Your task to perform on an android device: turn on sleep mode Image 0: 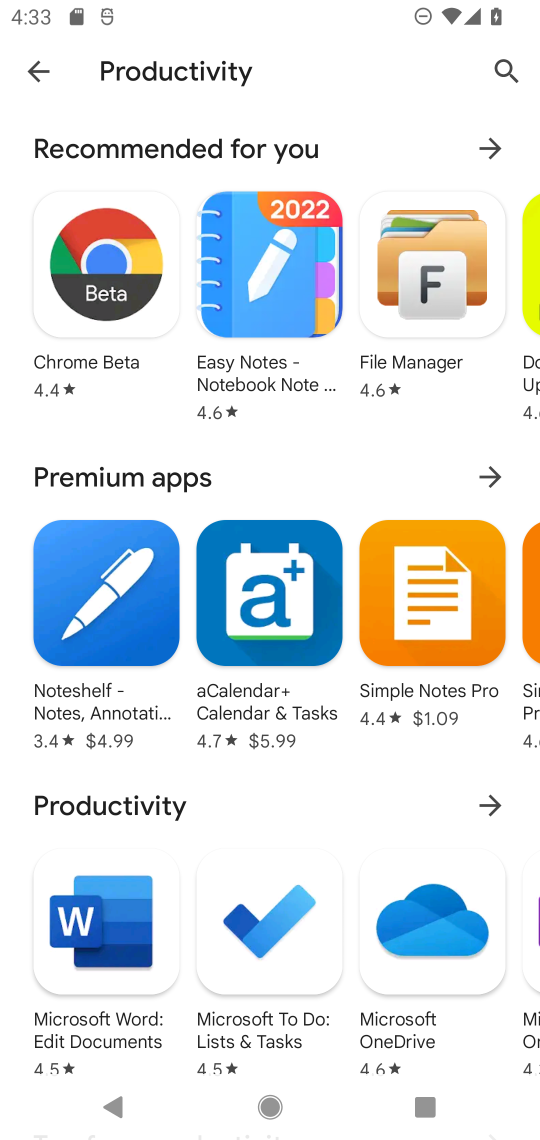
Step 0: press home button
Your task to perform on an android device: turn on sleep mode Image 1: 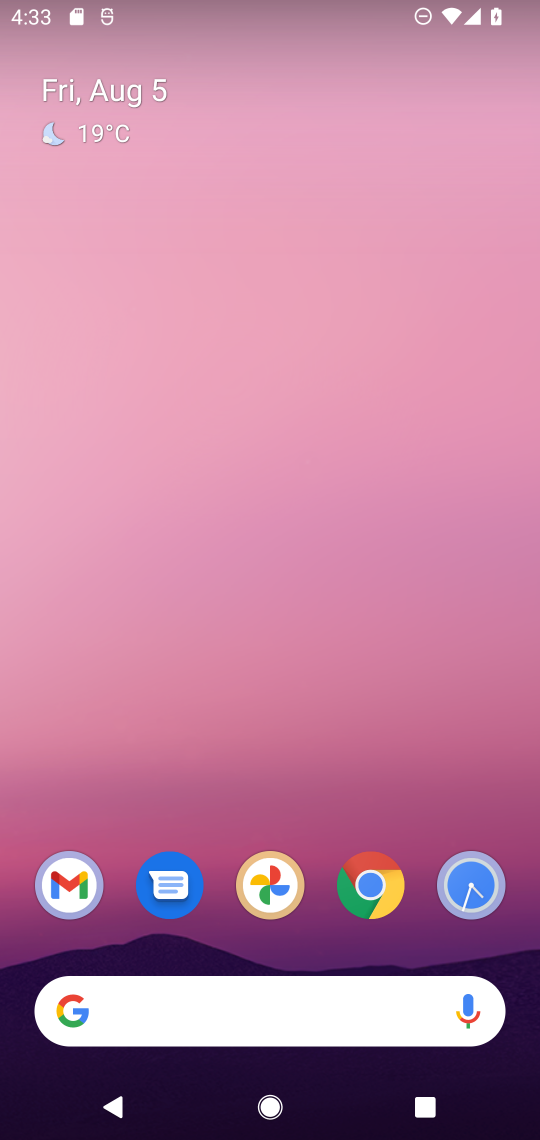
Step 1: drag from (328, 959) to (283, 182)
Your task to perform on an android device: turn on sleep mode Image 2: 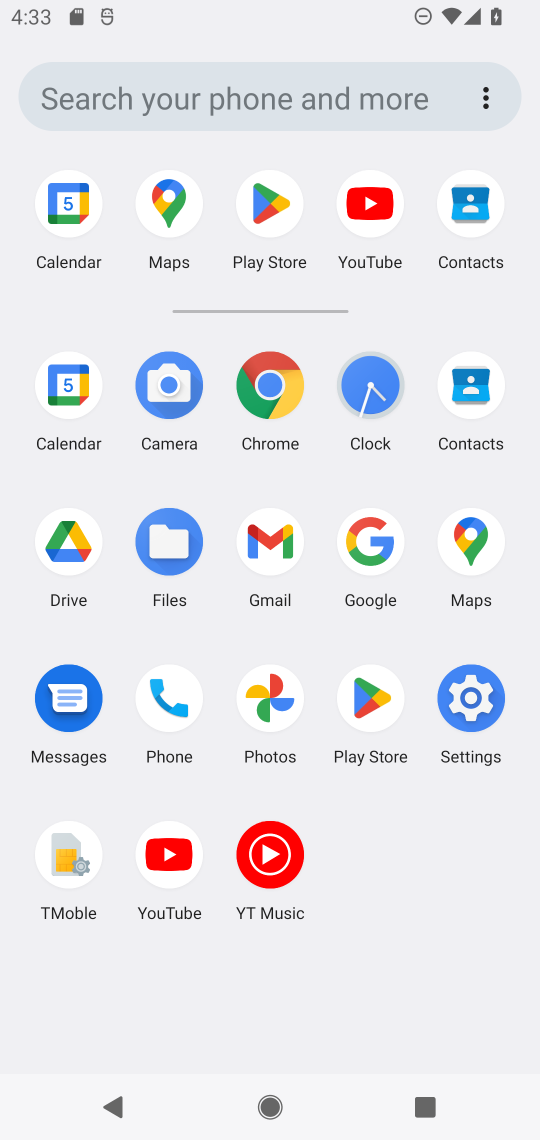
Step 2: click (473, 698)
Your task to perform on an android device: turn on sleep mode Image 3: 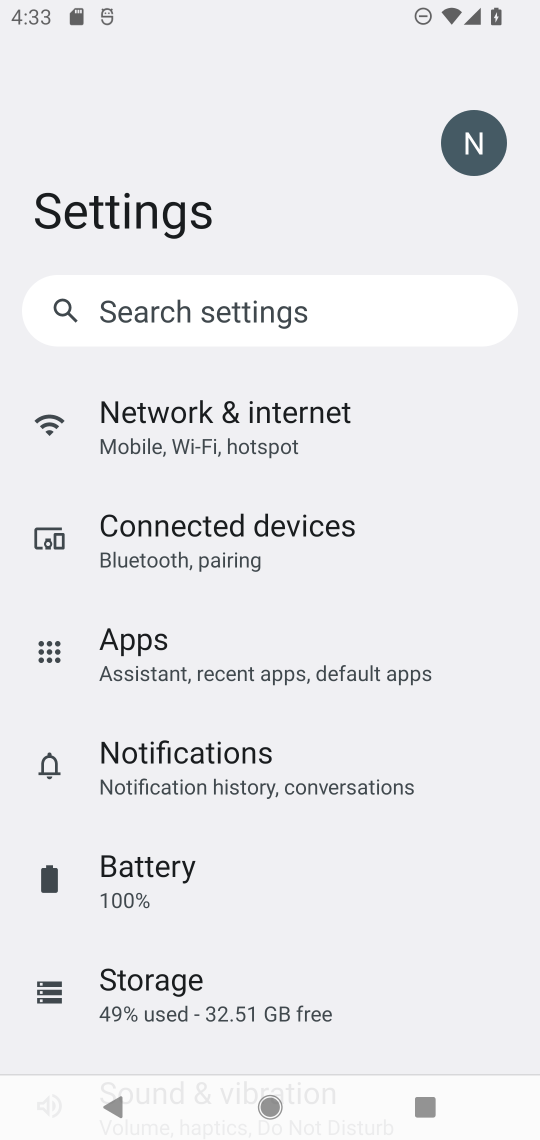
Step 3: task complete